Your task to perform on an android device: turn off translation in the chrome app Image 0: 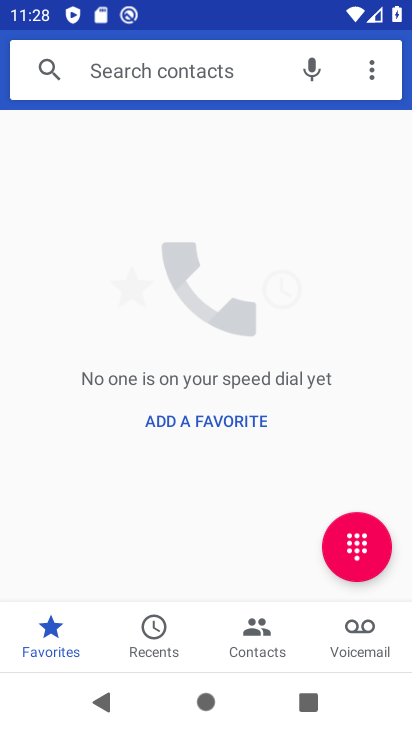
Step 0: press home button
Your task to perform on an android device: turn off translation in the chrome app Image 1: 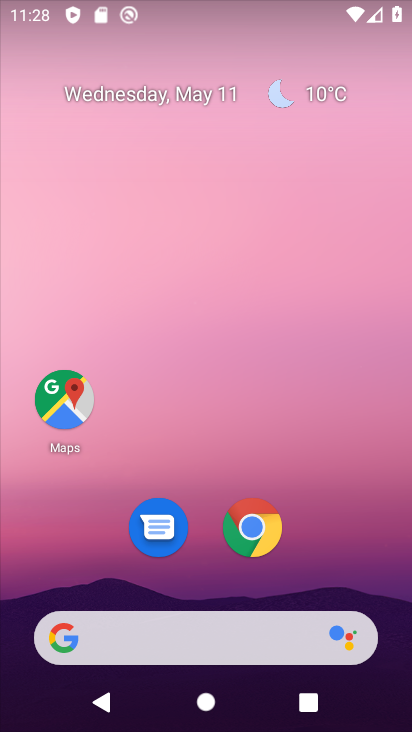
Step 1: click (246, 535)
Your task to perform on an android device: turn off translation in the chrome app Image 2: 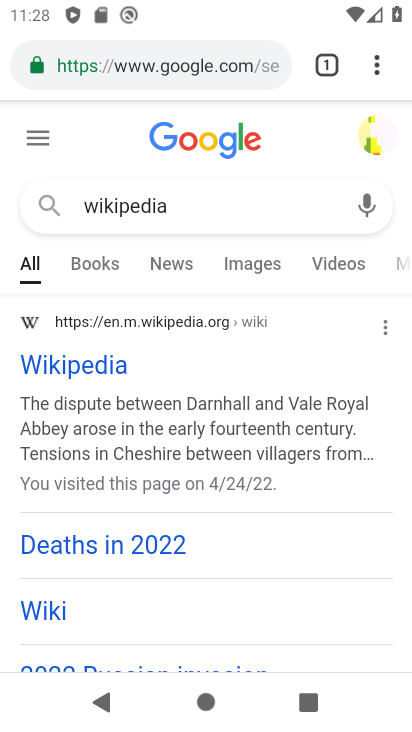
Step 2: click (378, 72)
Your task to perform on an android device: turn off translation in the chrome app Image 3: 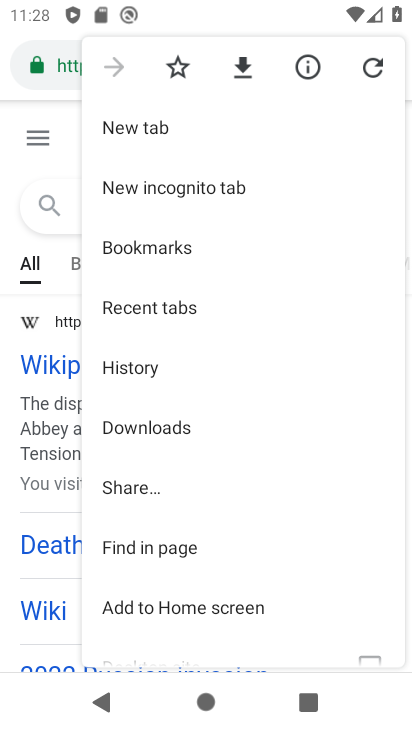
Step 3: drag from (182, 577) to (229, 198)
Your task to perform on an android device: turn off translation in the chrome app Image 4: 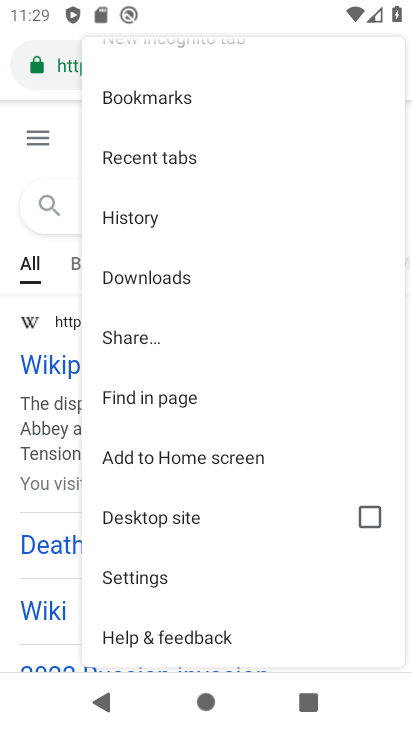
Step 4: click (156, 577)
Your task to perform on an android device: turn off translation in the chrome app Image 5: 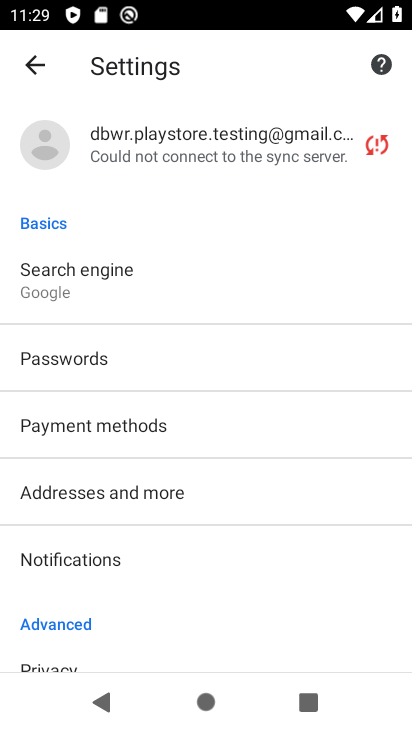
Step 5: drag from (142, 562) to (209, 314)
Your task to perform on an android device: turn off translation in the chrome app Image 6: 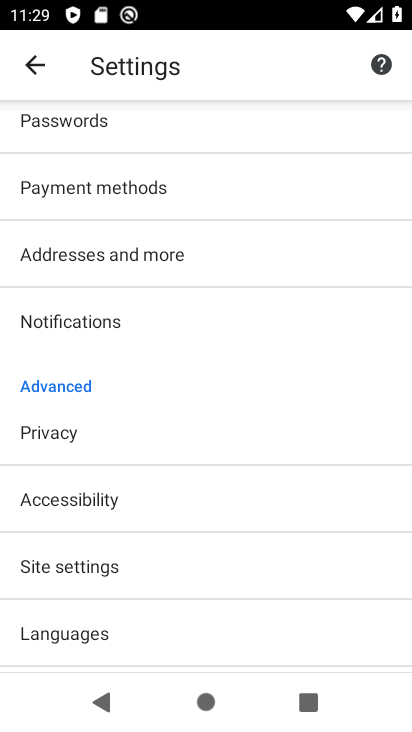
Step 6: drag from (130, 566) to (207, 291)
Your task to perform on an android device: turn off translation in the chrome app Image 7: 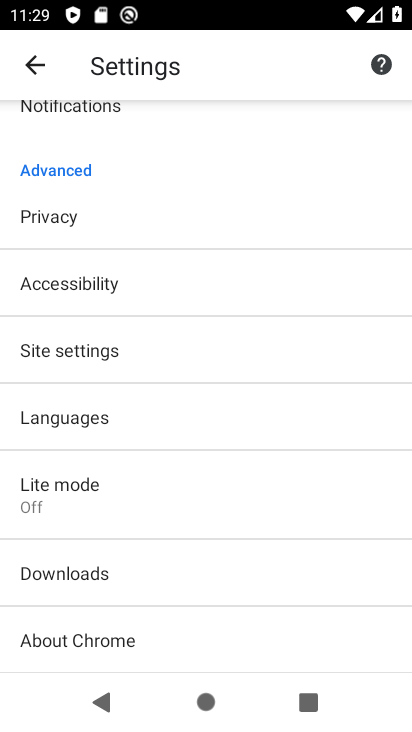
Step 7: click (94, 425)
Your task to perform on an android device: turn off translation in the chrome app Image 8: 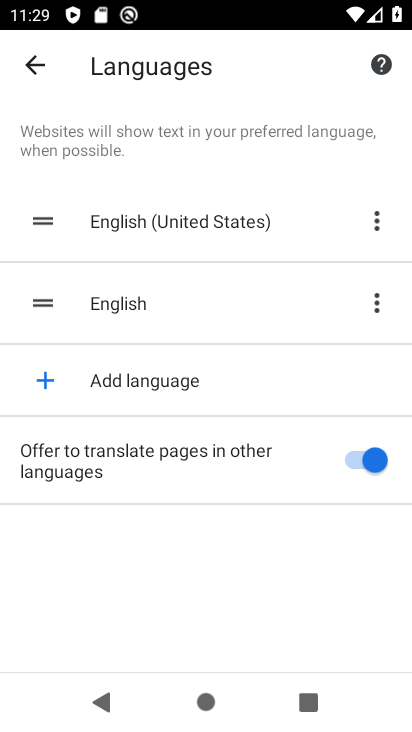
Step 8: click (340, 473)
Your task to perform on an android device: turn off translation in the chrome app Image 9: 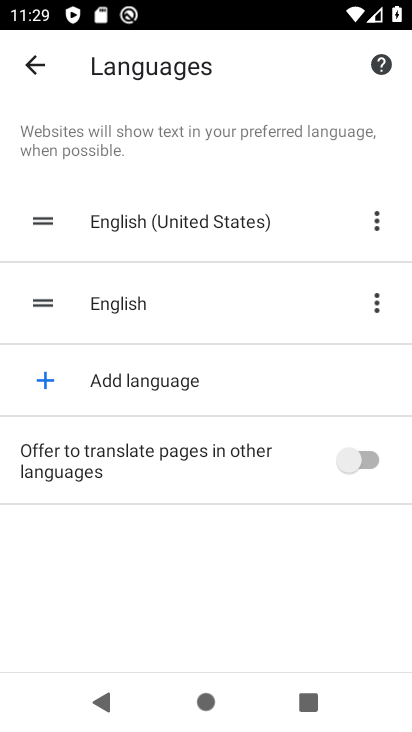
Step 9: task complete